Your task to perform on an android device: Go to settings Image 0: 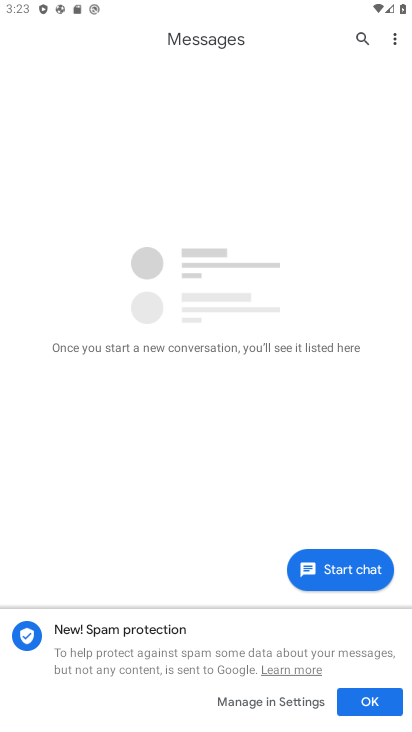
Step 0: press home button
Your task to perform on an android device: Go to settings Image 1: 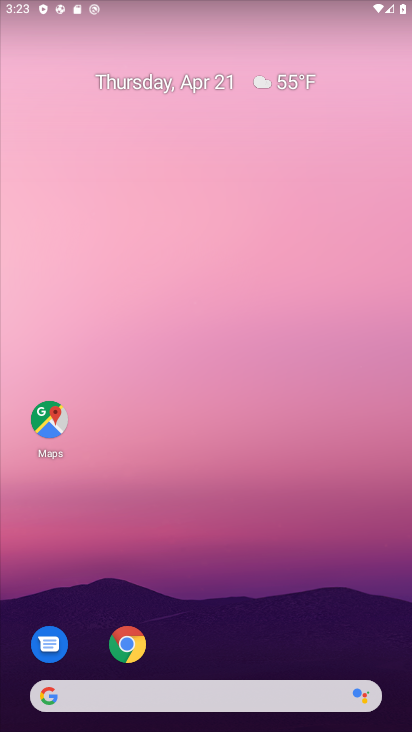
Step 1: drag from (204, 726) to (204, 94)
Your task to perform on an android device: Go to settings Image 2: 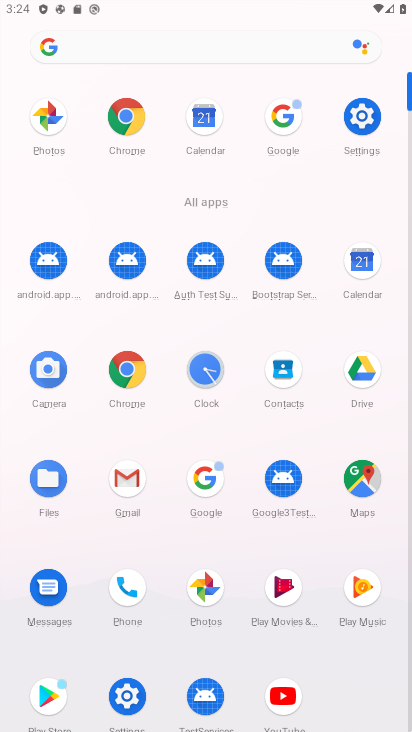
Step 2: click (359, 122)
Your task to perform on an android device: Go to settings Image 3: 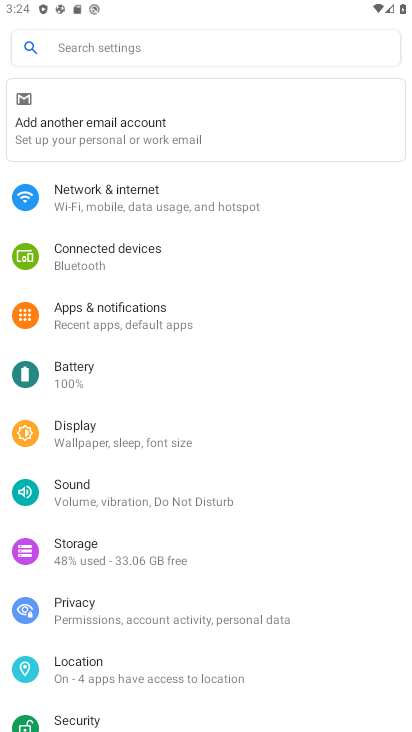
Step 3: task complete